Your task to perform on an android device: turn off javascript in the chrome app Image 0: 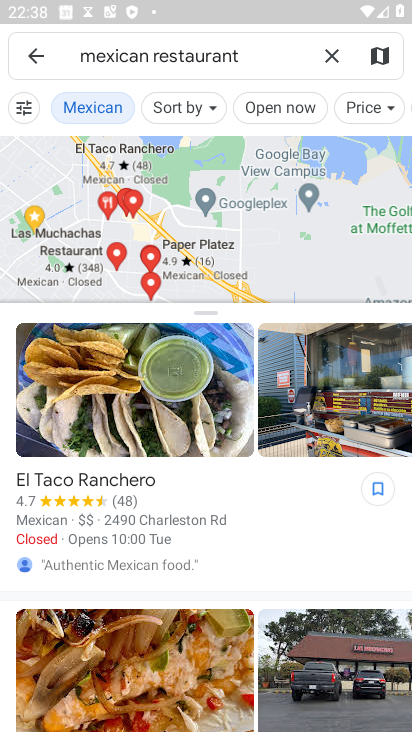
Step 0: press home button
Your task to perform on an android device: turn off javascript in the chrome app Image 1: 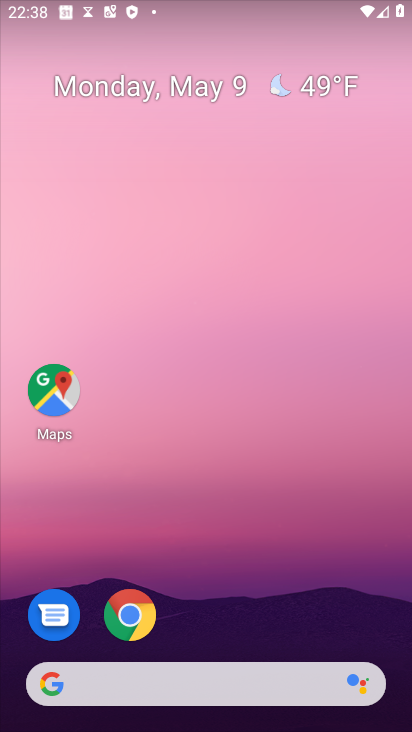
Step 1: click (155, 625)
Your task to perform on an android device: turn off javascript in the chrome app Image 2: 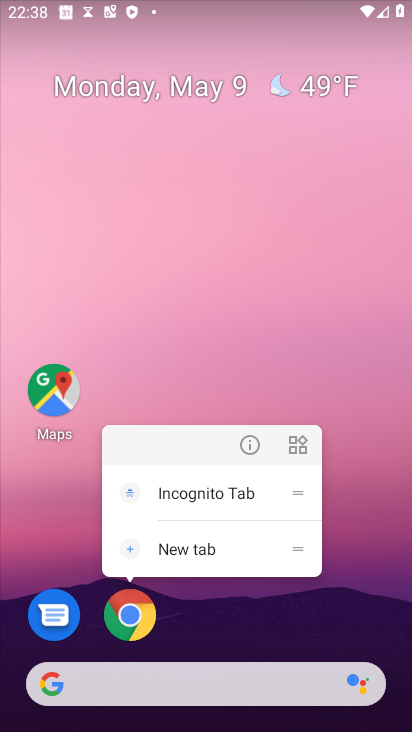
Step 2: click (123, 618)
Your task to perform on an android device: turn off javascript in the chrome app Image 3: 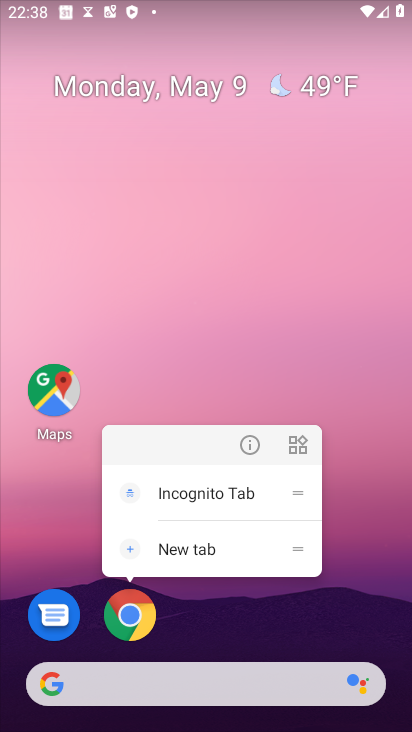
Step 3: click (133, 626)
Your task to perform on an android device: turn off javascript in the chrome app Image 4: 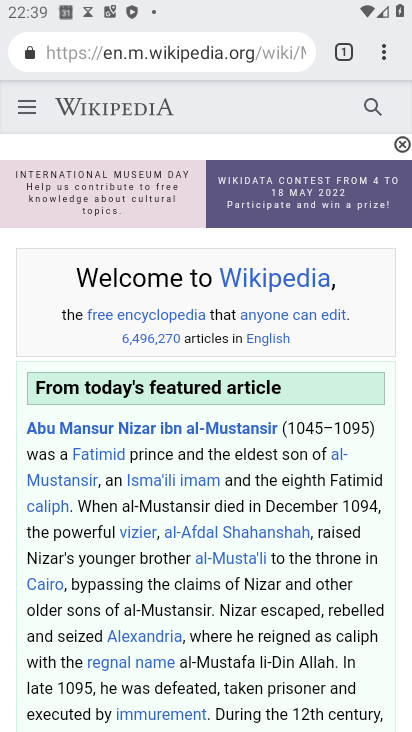
Step 4: drag from (388, 51) to (229, 659)
Your task to perform on an android device: turn off javascript in the chrome app Image 5: 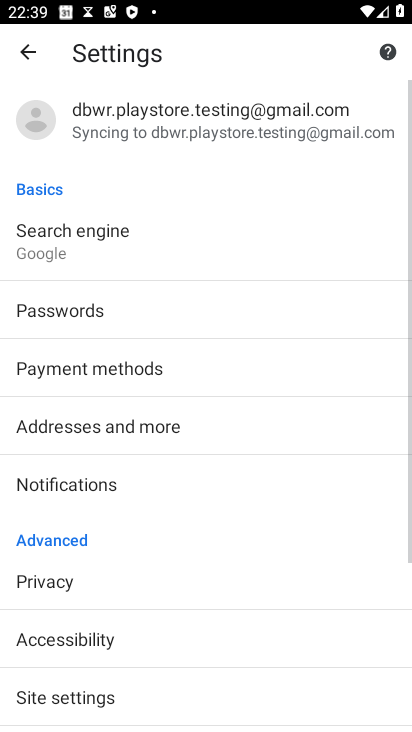
Step 5: drag from (230, 642) to (233, 339)
Your task to perform on an android device: turn off javascript in the chrome app Image 6: 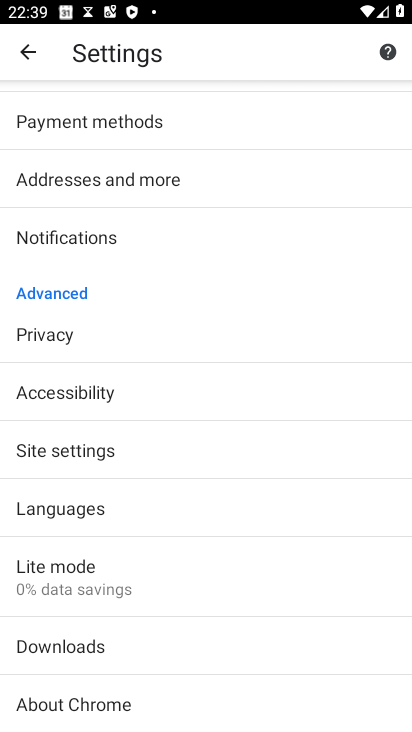
Step 6: click (79, 459)
Your task to perform on an android device: turn off javascript in the chrome app Image 7: 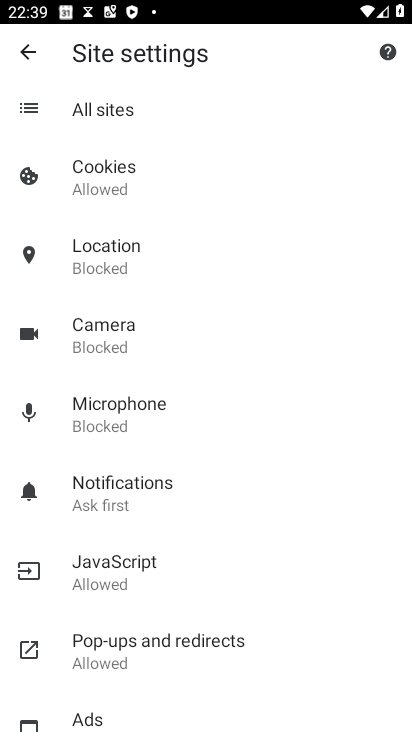
Step 7: click (104, 586)
Your task to perform on an android device: turn off javascript in the chrome app Image 8: 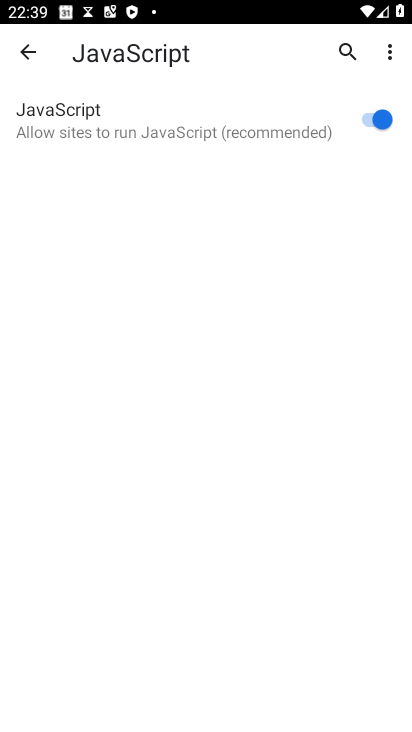
Step 8: click (379, 116)
Your task to perform on an android device: turn off javascript in the chrome app Image 9: 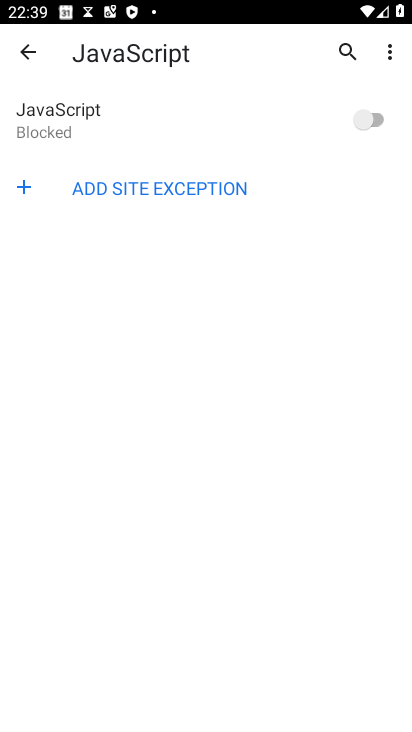
Step 9: task complete